Your task to perform on an android device: Go to accessibility settings Image 0: 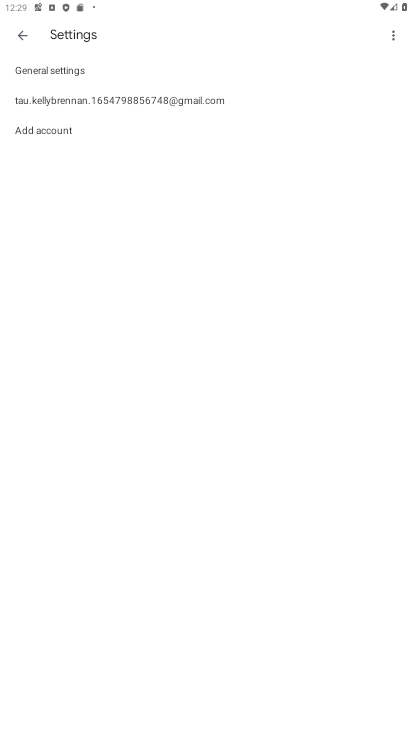
Step 0: press home button
Your task to perform on an android device: Go to accessibility settings Image 1: 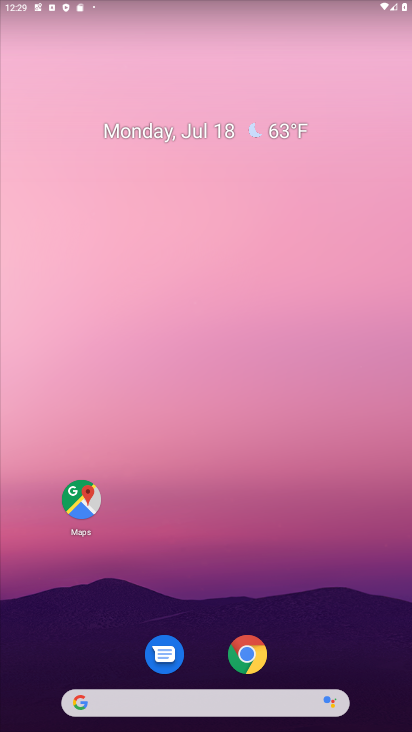
Step 1: drag from (207, 624) to (262, 266)
Your task to perform on an android device: Go to accessibility settings Image 2: 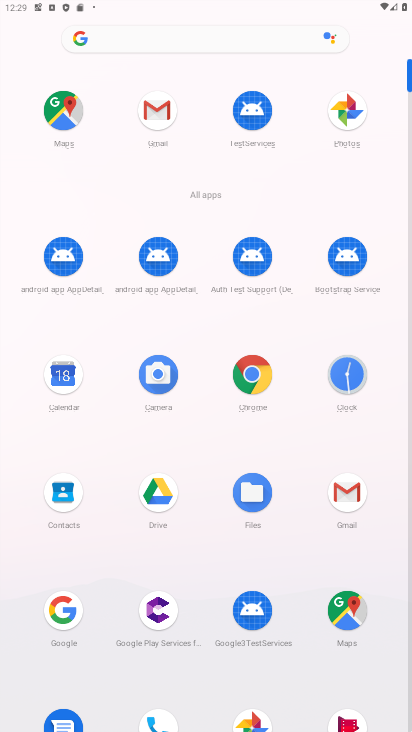
Step 2: drag from (119, 491) to (96, 243)
Your task to perform on an android device: Go to accessibility settings Image 3: 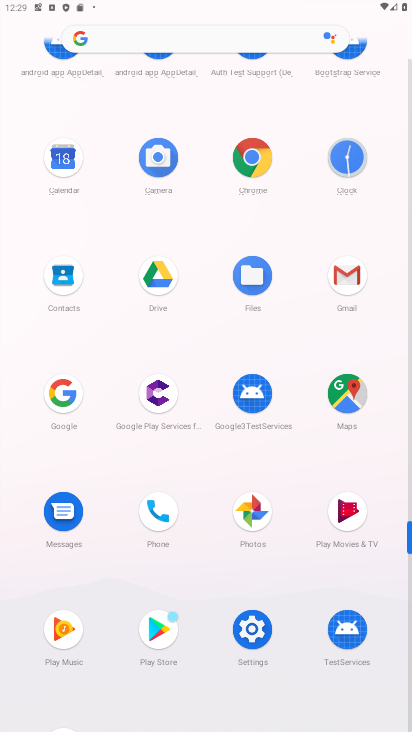
Step 3: click (253, 621)
Your task to perform on an android device: Go to accessibility settings Image 4: 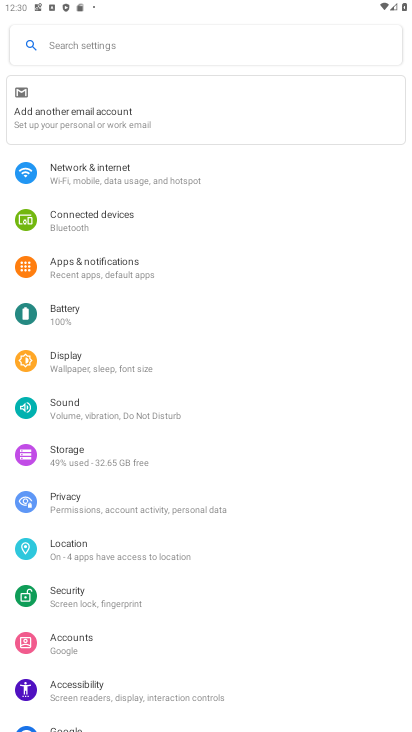
Step 4: click (98, 685)
Your task to perform on an android device: Go to accessibility settings Image 5: 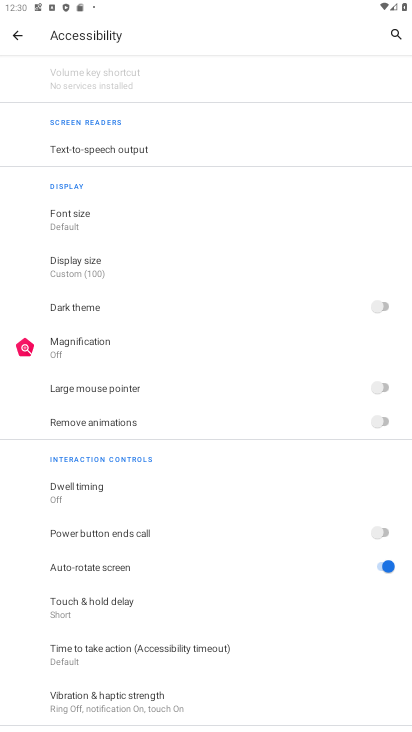
Step 5: task complete